Your task to perform on an android device: set an alarm Image 0: 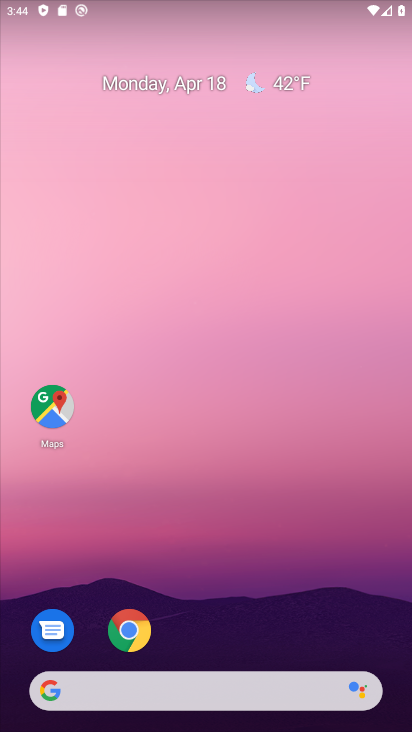
Step 0: drag from (180, 655) to (289, 122)
Your task to perform on an android device: set an alarm Image 1: 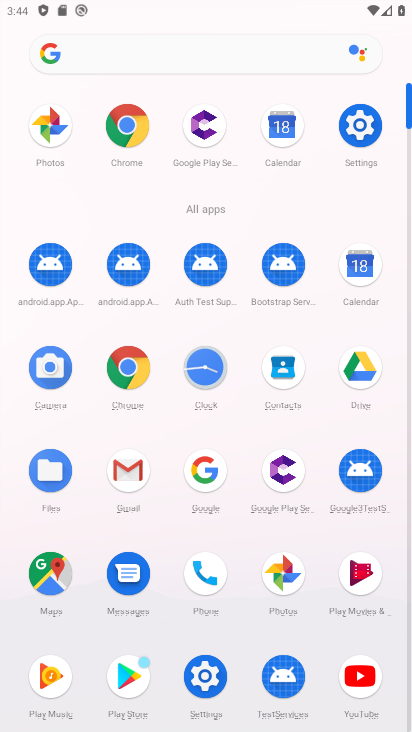
Step 1: click (197, 373)
Your task to perform on an android device: set an alarm Image 2: 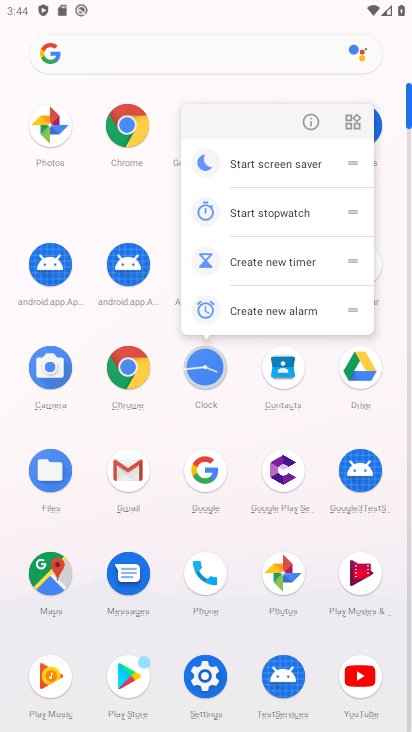
Step 2: click (215, 358)
Your task to perform on an android device: set an alarm Image 3: 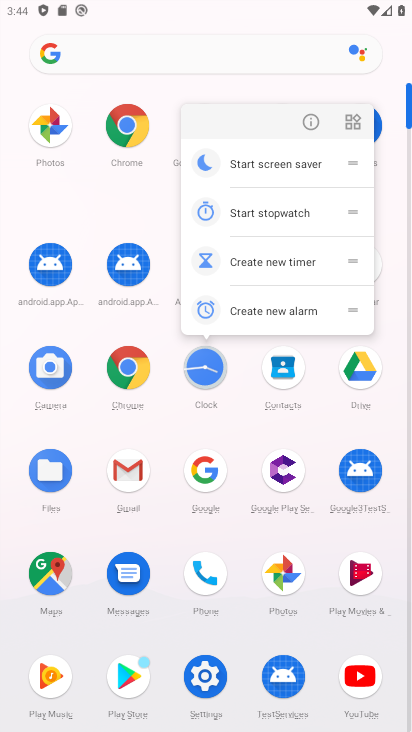
Step 3: click (213, 370)
Your task to perform on an android device: set an alarm Image 4: 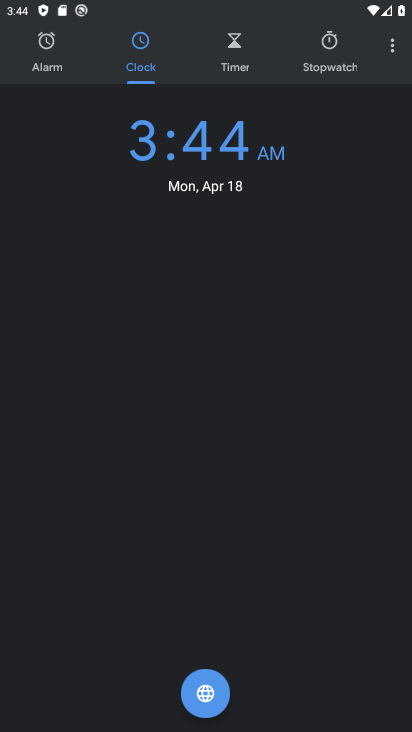
Step 4: click (66, 62)
Your task to perform on an android device: set an alarm Image 5: 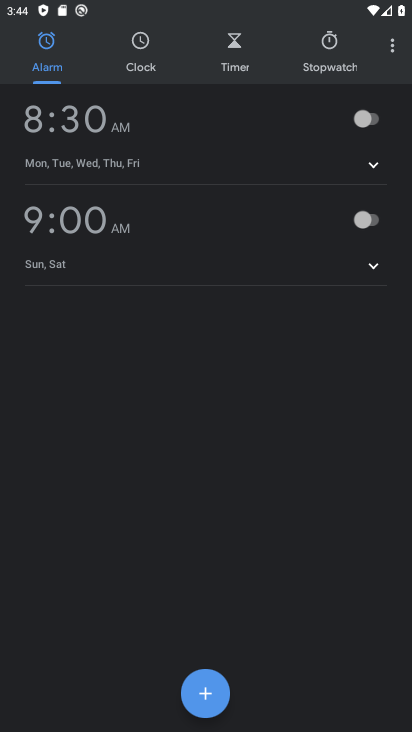
Step 5: click (388, 223)
Your task to perform on an android device: set an alarm Image 6: 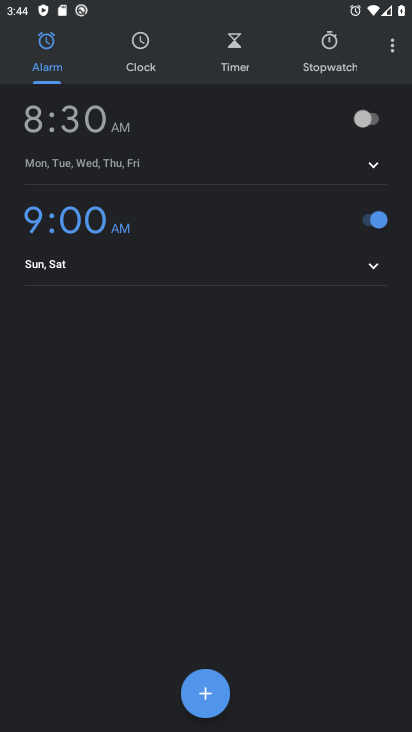
Step 6: task complete